Your task to perform on an android device: Show me recent news Image 0: 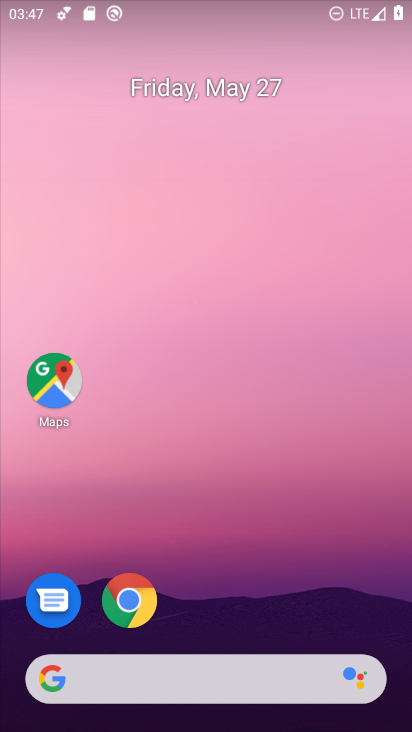
Step 0: drag from (2, 264) to (399, 431)
Your task to perform on an android device: Show me recent news Image 1: 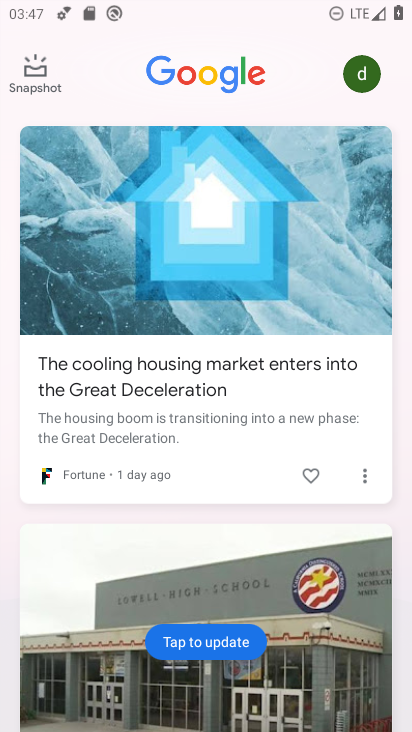
Step 1: task complete